Your task to perform on an android device: Open the map Image 0: 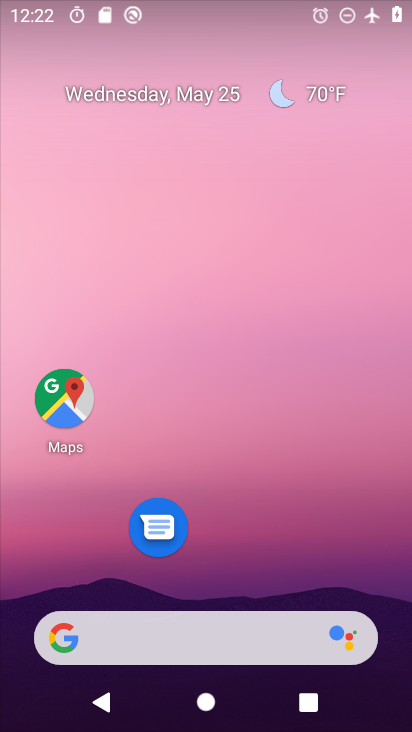
Step 0: type "red"
Your task to perform on an android device: Open the map Image 1: 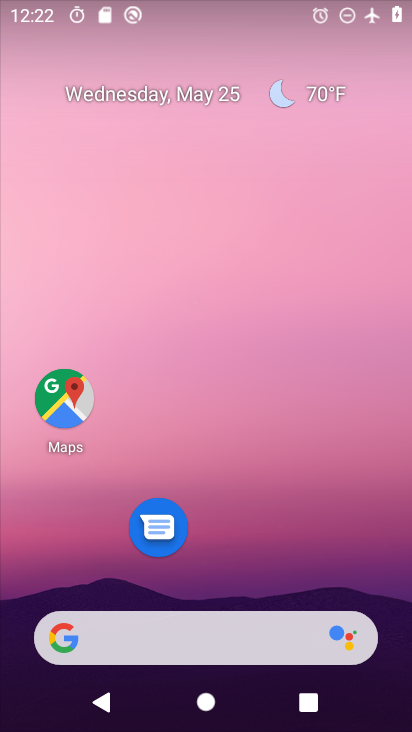
Step 1: drag from (267, 221) to (284, 67)
Your task to perform on an android device: Open the map Image 2: 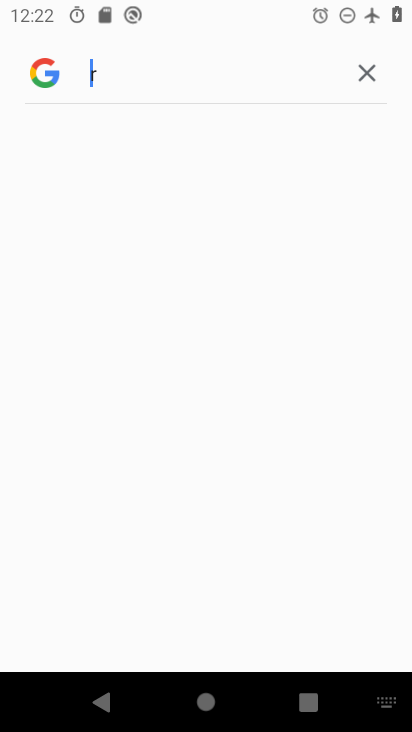
Step 2: press home button
Your task to perform on an android device: Open the map Image 3: 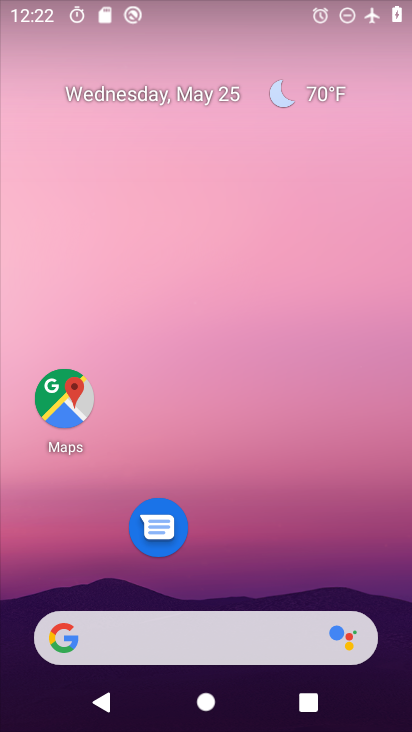
Step 3: click (70, 406)
Your task to perform on an android device: Open the map Image 4: 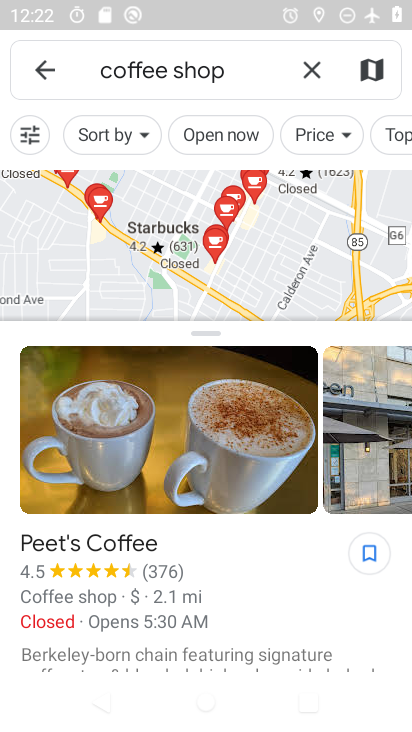
Step 4: task complete